Your task to perform on an android device: Open Google Maps and go to "Timeline" Image 0: 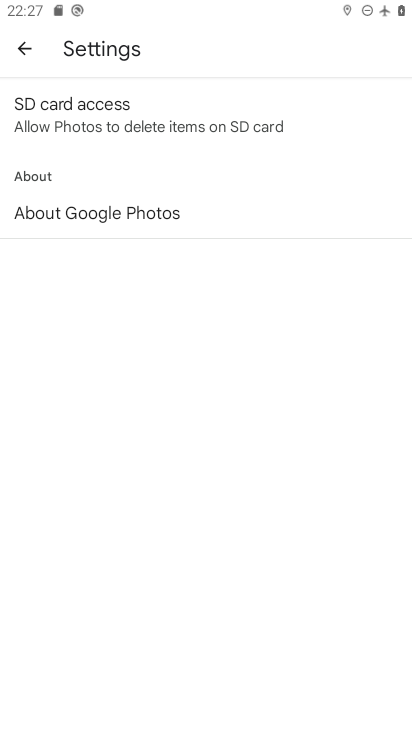
Step 0: press home button
Your task to perform on an android device: Open Google Maps and go to "Timeline" Image 1: 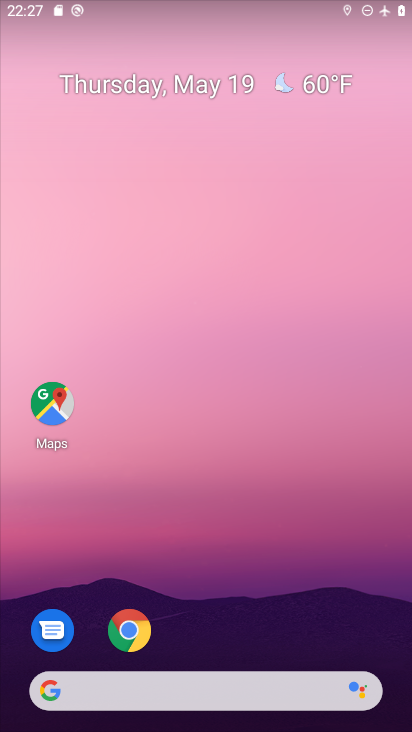
Step 1: drag from (247, 483) to (250, 46)
Your task to perform on an android device: Open Google Maps and go to "Timeline" Image 2: 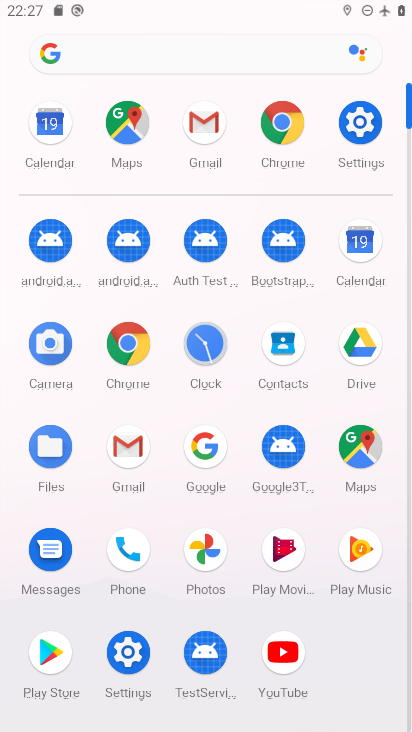
Step 2: click (115, 116)
Your task to perform on an android device: Open Google Maps and go to "Timeline" Image 3: 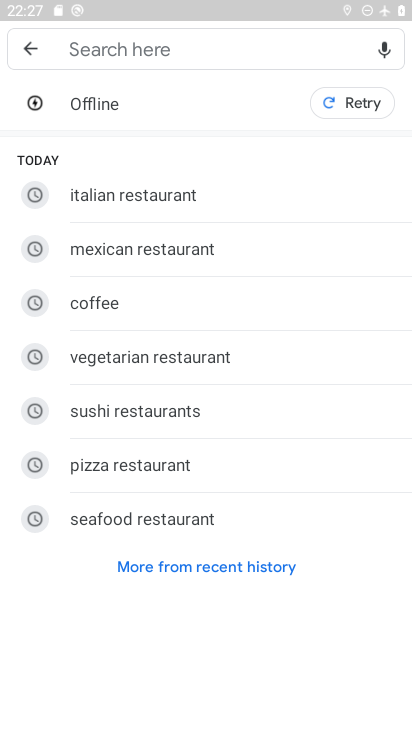
Step 3: click (22, 45)
Your task to perform on an android device: Open Google Maps and go to "Timeline" Image 4: 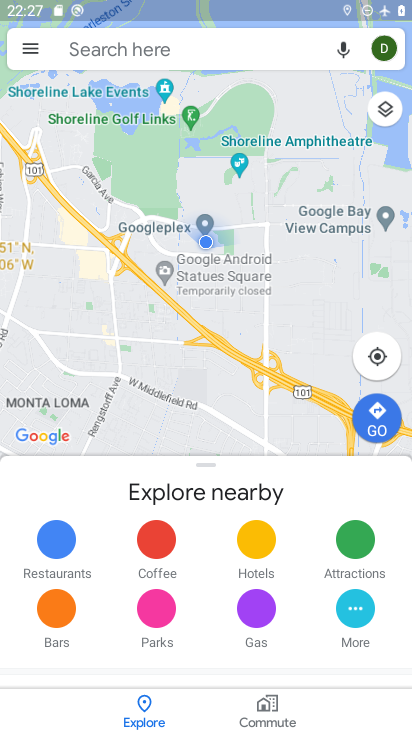
Step 4: click (27, 49)
Your task to perform on an android device: Open Google Maps and go to "Timeline" Image 5: 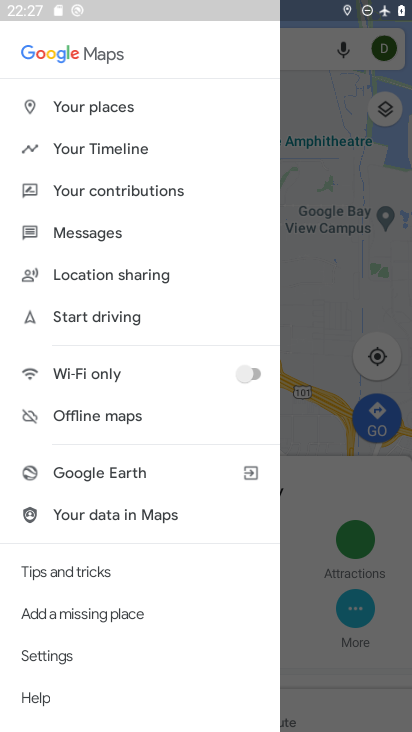
Step 5: click (112, 148)
Your task to perform on an android device: Open Google Maps and go to "Timeline" Image 6: 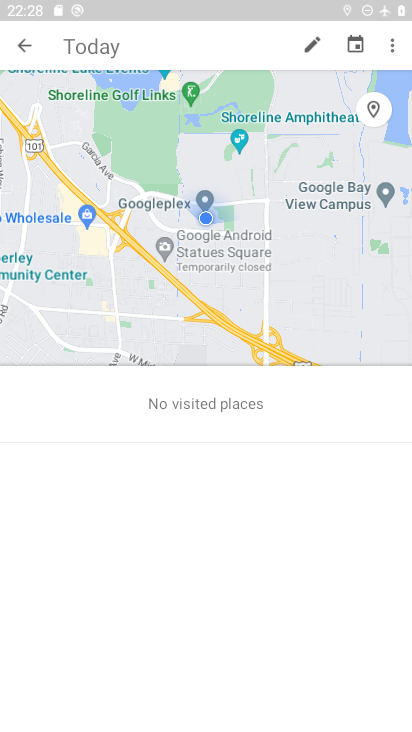
Step 6: task complete